Your task to perform on an android device: Open display settings Image 0: 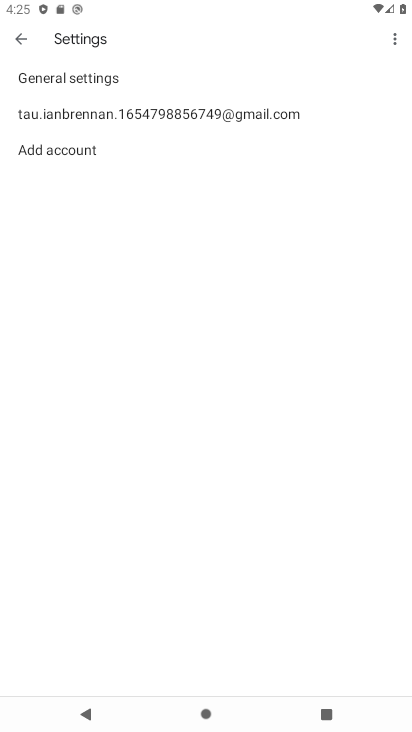
Step 0: press home button
Your task to perform on an android device: Open display settings Image 1: 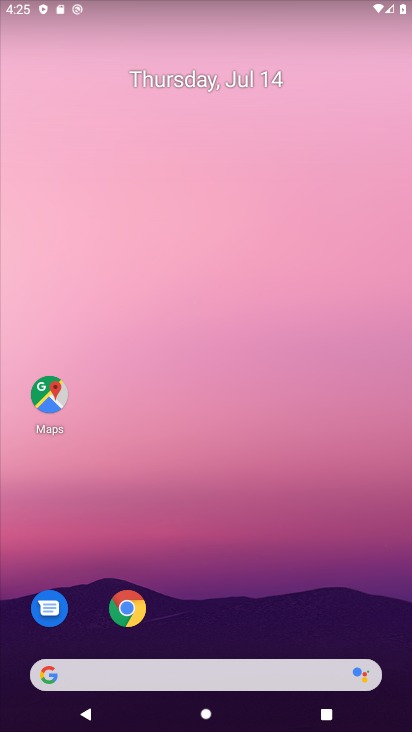
Step 1: drag from (222, 632) to (238, 56)
Your task to perform on an android device: Open display settings Image 2: 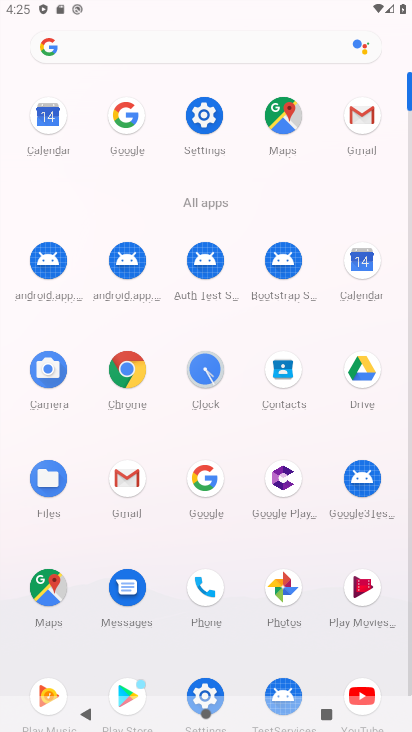
Step 2: click (206, 110)
Your task to perform on an android device: Open display settings Image 3: 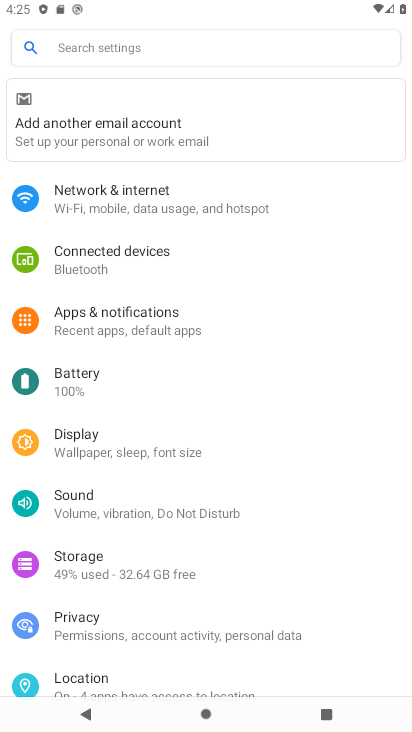
Step 3: click (133, 448)
Your task to perform on an android device: Open display settings Image 4: 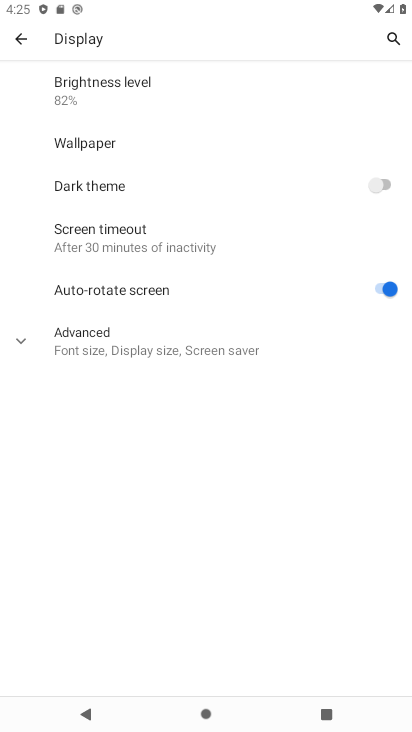
Step 4: task complete